Your task to perform on an android device: Open Google Maps Image 0: 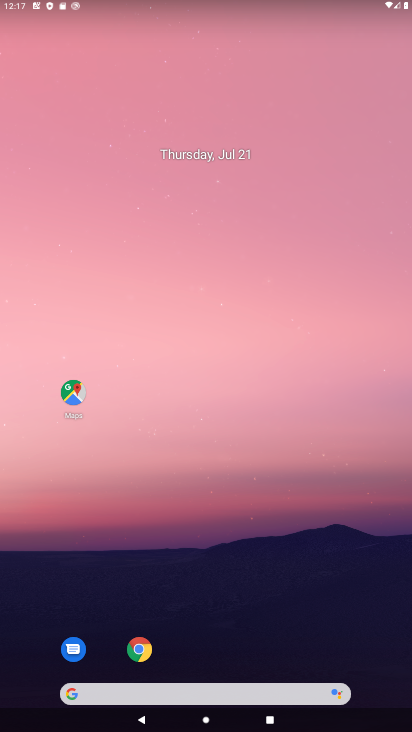
Step 0: click (72, 391)
Your task to perform on an android device: Open Google Maps Image 1: 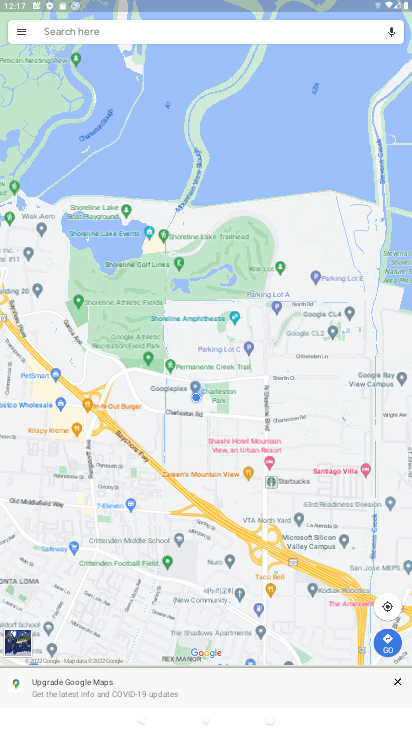
Step 1: task complete